Your task to perform on an android device: Go to notification settings Image 0: 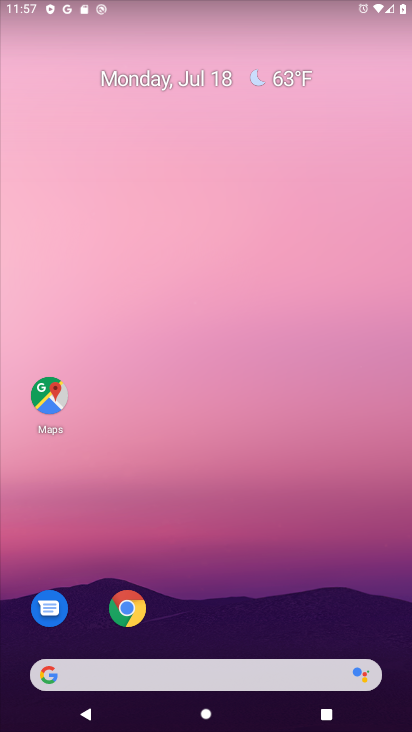
Step 0: drag from (271, 594) to (265, 124)
Your task to perform on an android device: Go to notification settings Image 1: 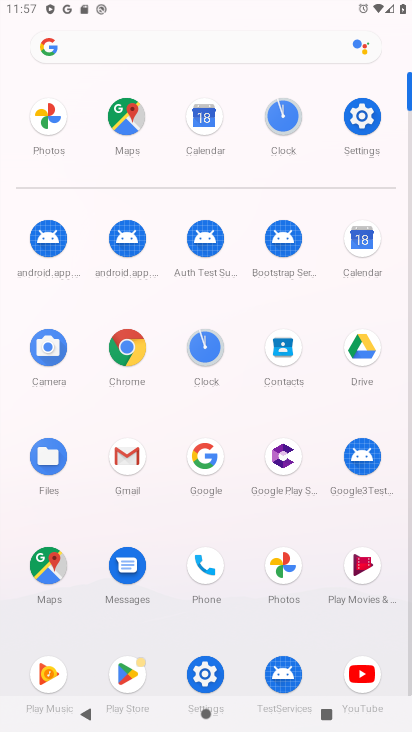
Step 1: click (348, 119)
Your task to perform on an android device: Go to notification settings Image 2: 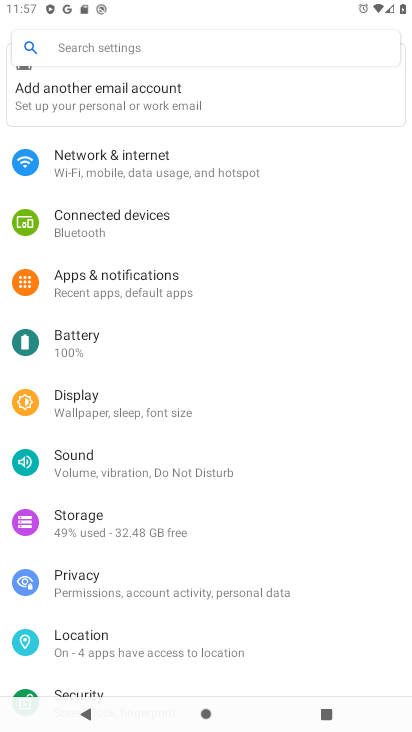
Step 2: click (141, 277)
Your task to perform on an android device: Go to notification settings Image 3: 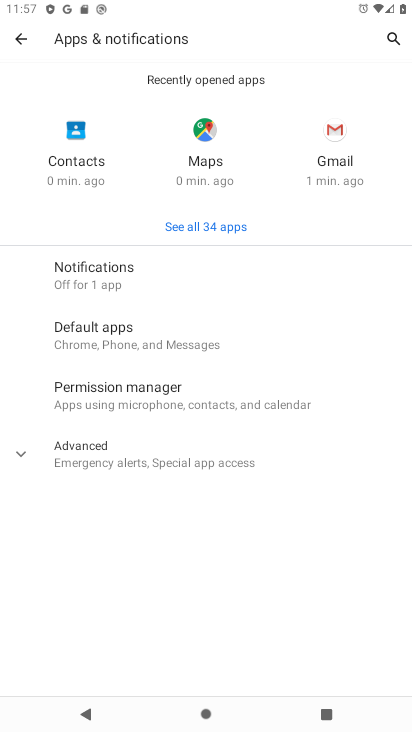
Step 3: click (139, 273)
Your task to perform on an android device: Go to notification settings Image 4: 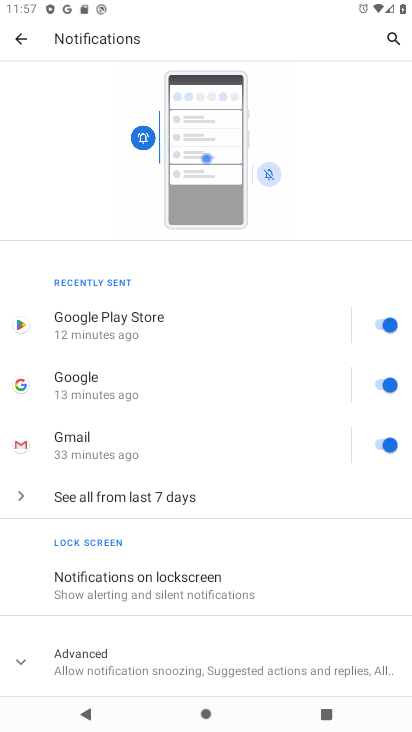
Step 4: task complete